Your task to perform on an android device: open app "Microsoft Excel" (install if not already installed), go to login, and select forgot password Image 0: 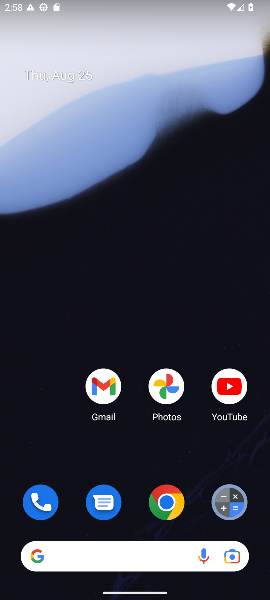
Step 0: drag from (135, 526) to (123, 61)
Your task to perform on an android device: open app "Microsoft Excel" (install if not already installed), go to login, and select forgot password Image 1: 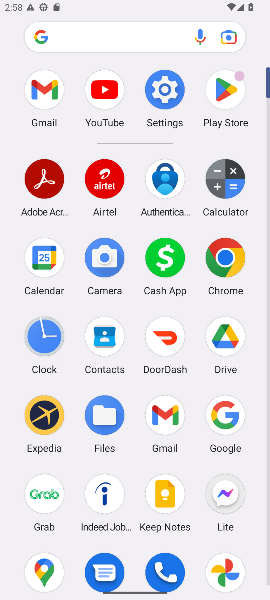
Step 1: click (224, 83)
Your task to perform on an android device: open app "Microsoft Excel" (install if not already installed), go to login, and select forgot password Image 2: 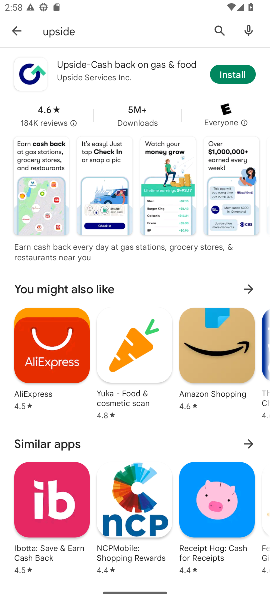
Step 2: click (220, 35)
Your task to perform on an android device: open app "Microsoft Excel" (install if not already installed), go to login, and select forgot password Image 3: 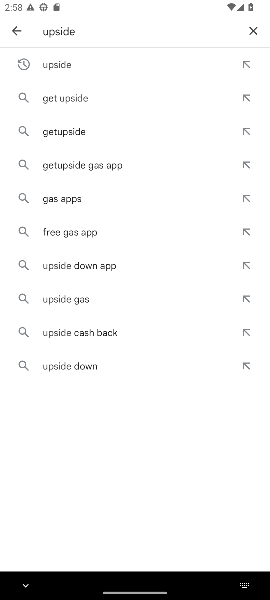
Step 3: click (249, 28)
Your task to perform on an android device: open app "Microsoft Excel" (install if not already installed), go to login, and select forgot password Image 4: 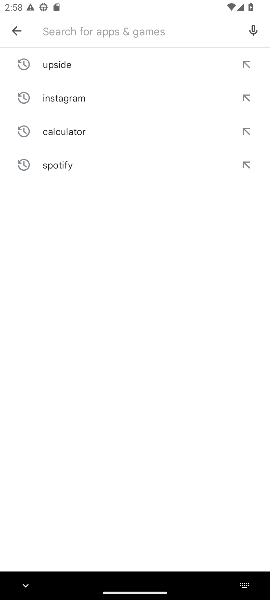
Step 4: type "microsoft excel"
Your task to perform on an android device: open app "Microsoft Excel" (install if not already installed), go to login, and select forgot password Image 5: 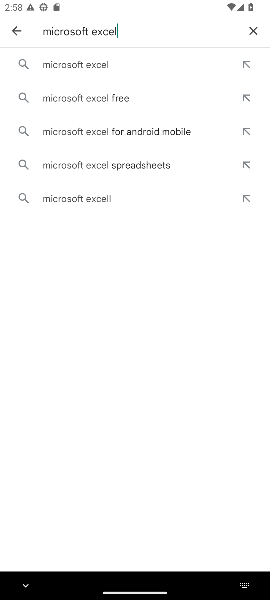
Step 5: click (108, 70)
Your task to perform on an android device: open app "Microsoft Excel" (install if not already installed), go to login, and select forgot password Image 6: 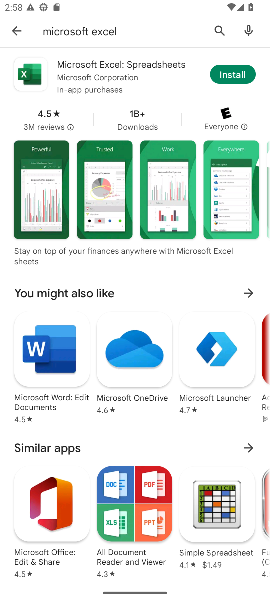
Step 6: click (223, 69)
Your task to perform on an android device: open app "Microsoft Excel" (install if not already installed), go to login, and select forgot password Image 7: 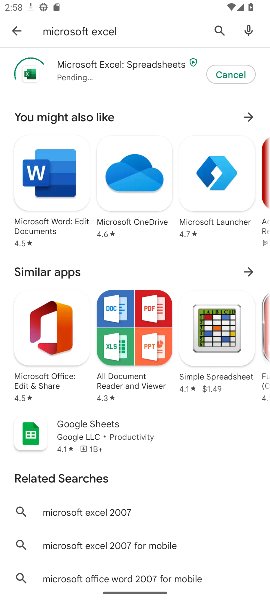
Step 7: task complete